Your task to perform on an android device: Go to Reddit.com Image 0: 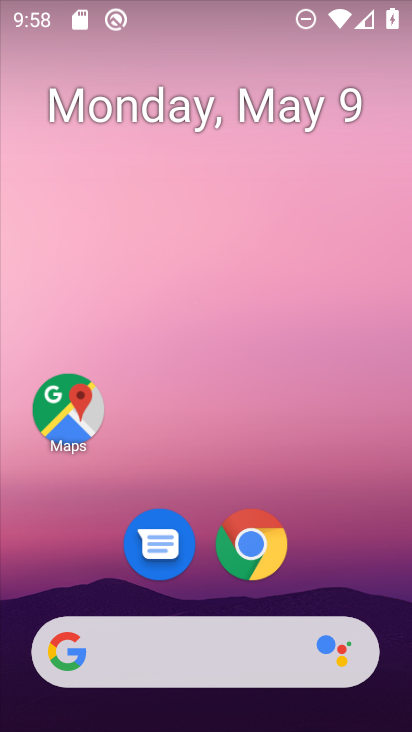
Step 0: click (243, 556)
Your task to perform on an android device: Go to Reddit.com Image 1: 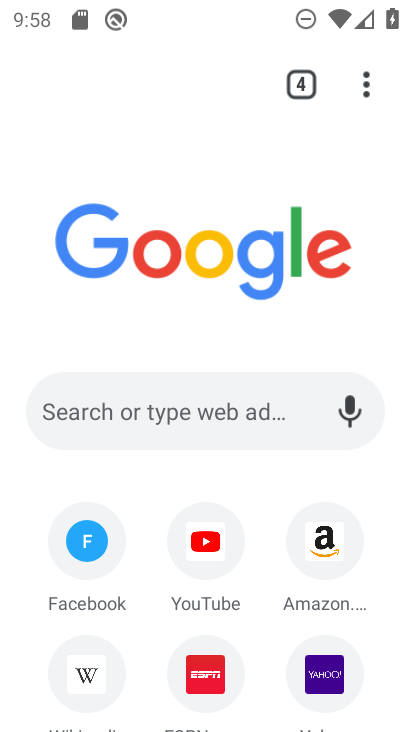
Step 1: click (188, 414)
Your task to perform on an android device: Go to Reddit.com Image 2: 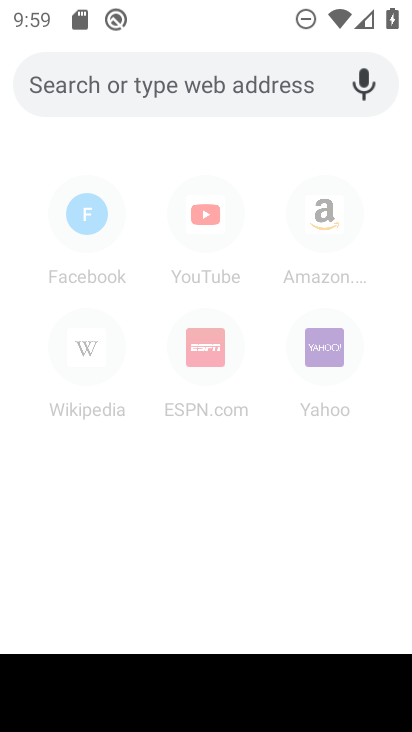
Step 2: type "reddit.com"
Your task to perform on an android device: Go to Reddit.com Image 3: 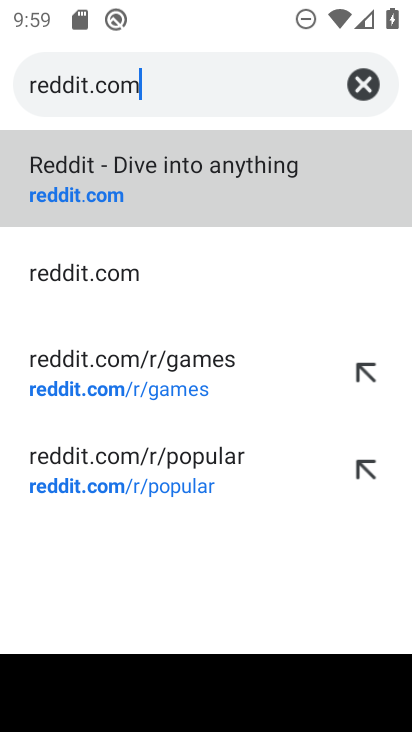
Step 3: click (121, 190)
Your task to perform on an android device: Go to Reddit.com Image 4: 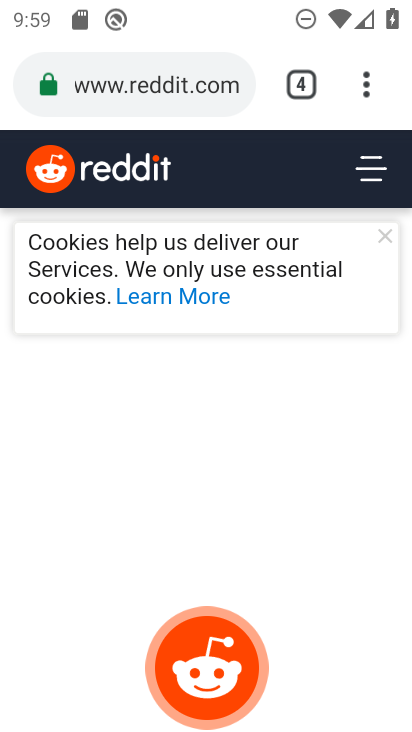
Step 4: task complete